Your task to perform on an android device: change notification settings in the gmail app Image 0: 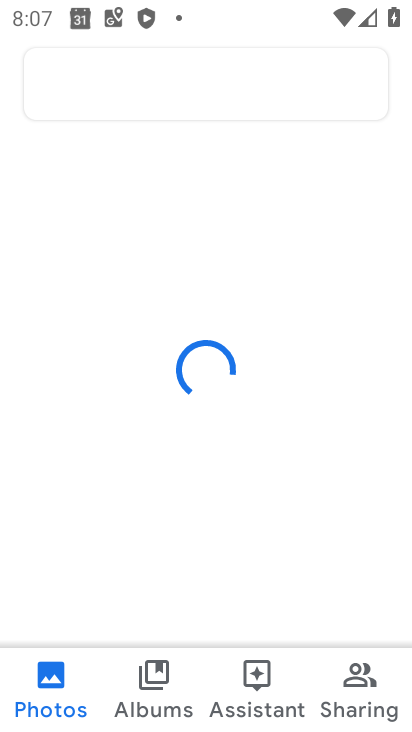
Step 0: press back button
Your task to perform on an android device: change notification settings in the gmail app Image 1: 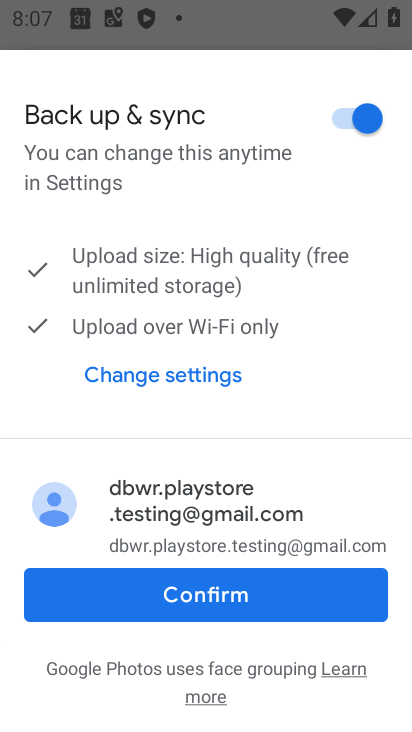
Step 1: press back button
Your task to perform on an android device: change notification settings in the gmail app Image 2: 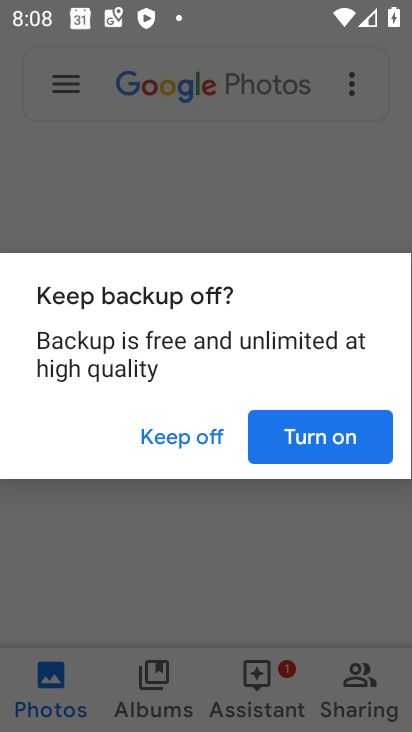
Step 2: press home button
Your task to perform on an android device: change notification settings in the gmail app Image 3: 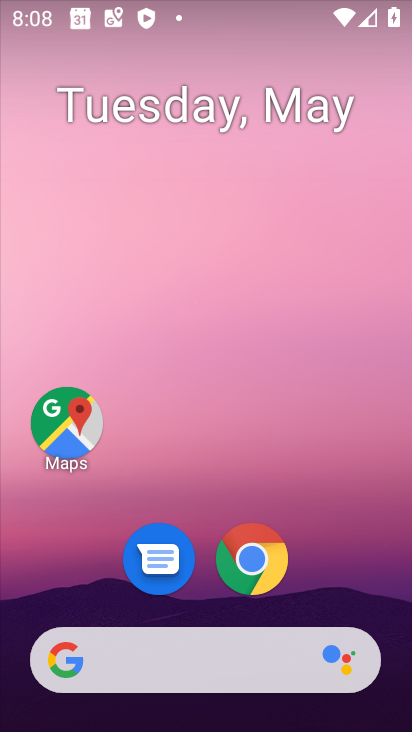
Step 3: drag from (187, 583) to (299, 6)
Your task to perform on an android device: change notification settings in the gmail app Image 4: 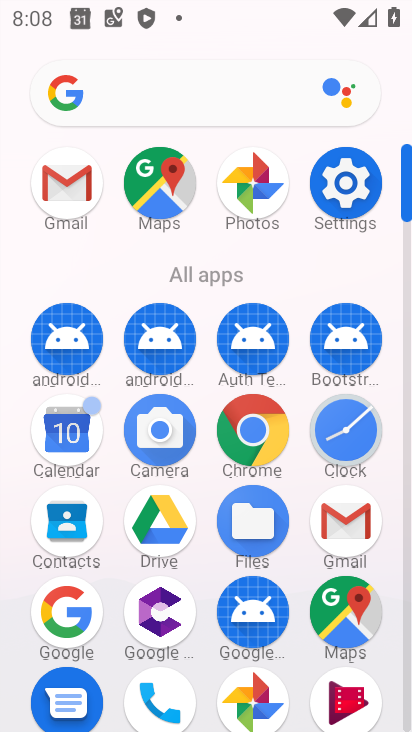
Step 4: click (54, 172)
Your task to perform on an android device: change notification settings in the gmail app Image 5: 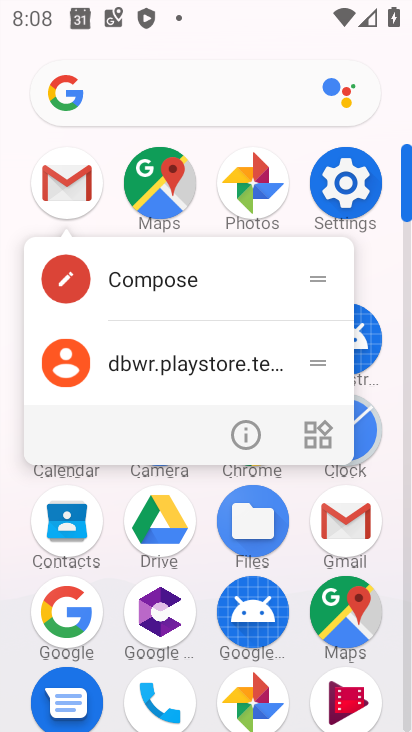
Step 5: click (243, 430)
Your task to perform on an android device: change notification settings in the gmail app Image 6: 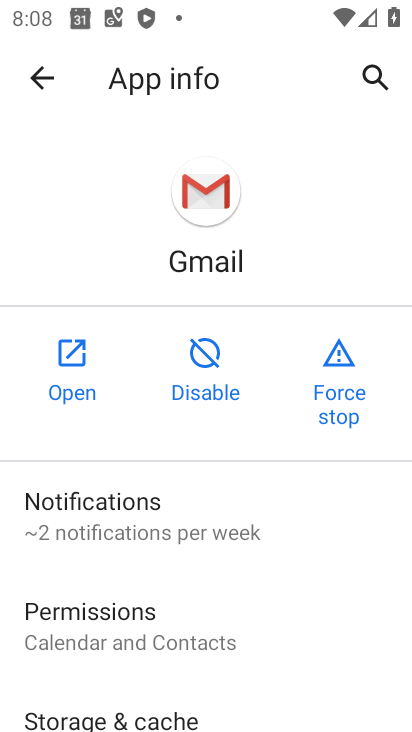
Step 6: click (124, 510)
Your task to perform on an android device: change notification settings in the gmail app Image 7: 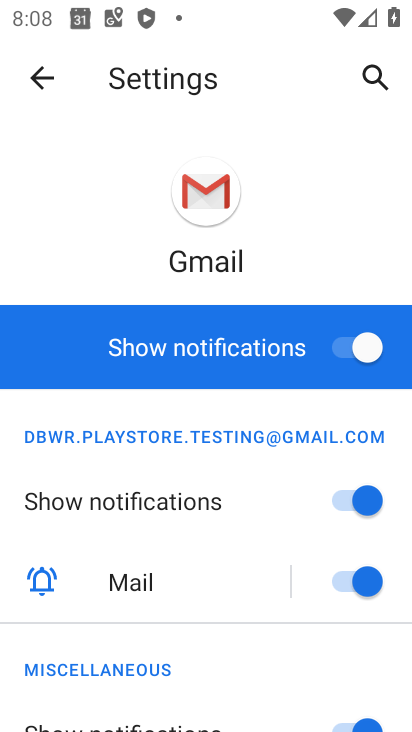
Step 7: drag from (242, 589) to (271, 382)
Your task to perform on an android device: change notification settings in the gmail app Image 8: 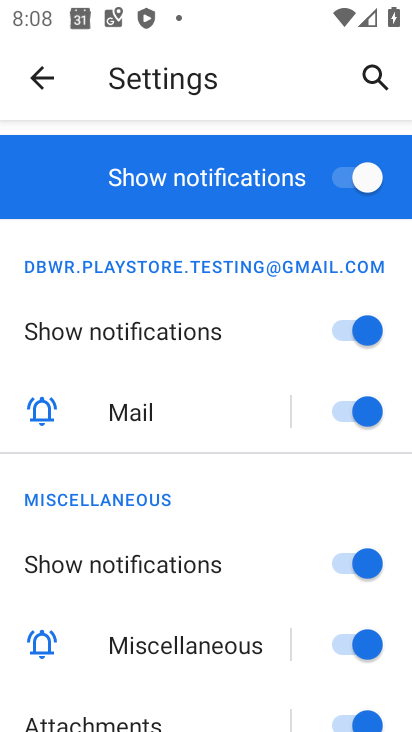
Step 8: click (364, 321)
Your task to perform on an android device: change notification settings in the gmail app Image 9: 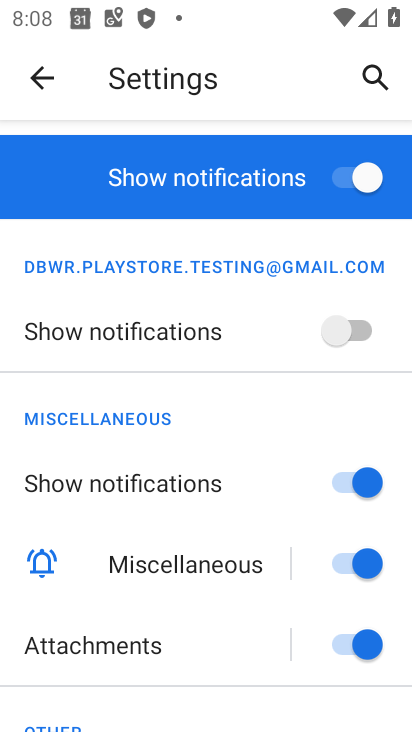
Step 9: task complete